Your task to perform on an android device: Toggle the flashlight Image 0: 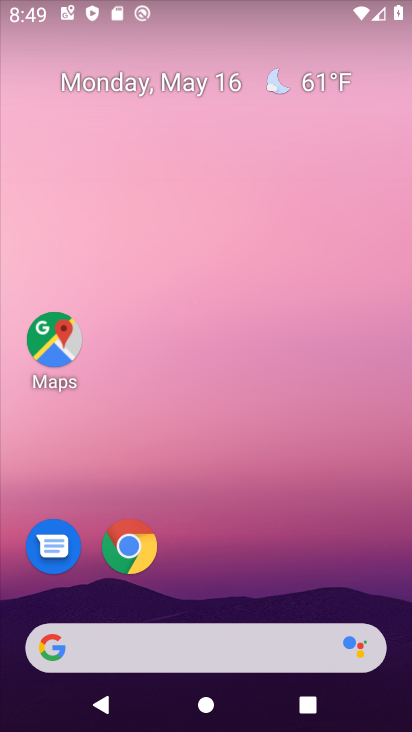
Step 0: drag from (312, 9) to (262, 320)
Your task to perform on an android device: Toggle the flashlight Image 1: 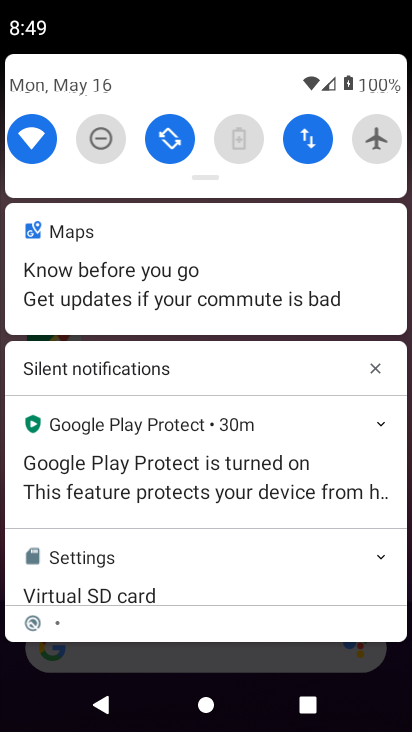
Step 1: drag from (216, 176) to (182, 474)
Your task to perform on an android device: Toggle the flashlight Image 2: 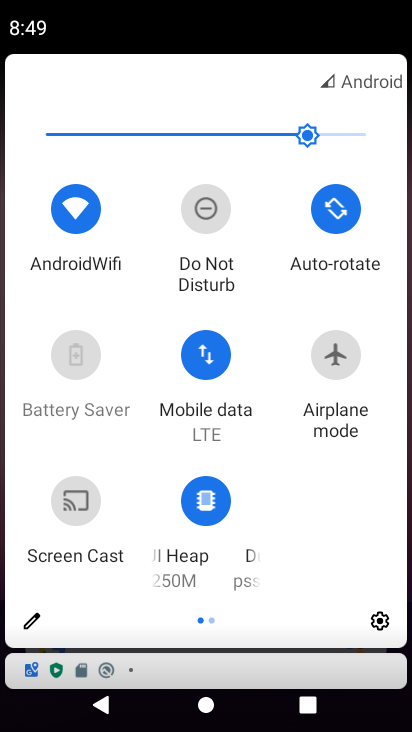
Step 2: click (32, 614)
Your task to perform on an android device: Toggle the flashlight Image 3: 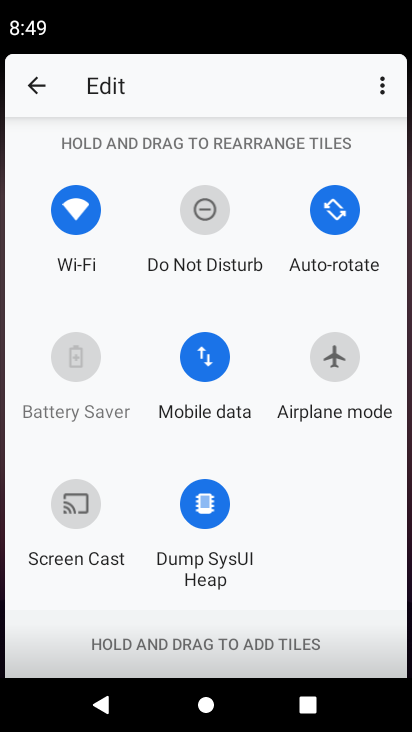
Step 3: task complete